Your task to perform on an android device: Toggle the flashlight Image 0: 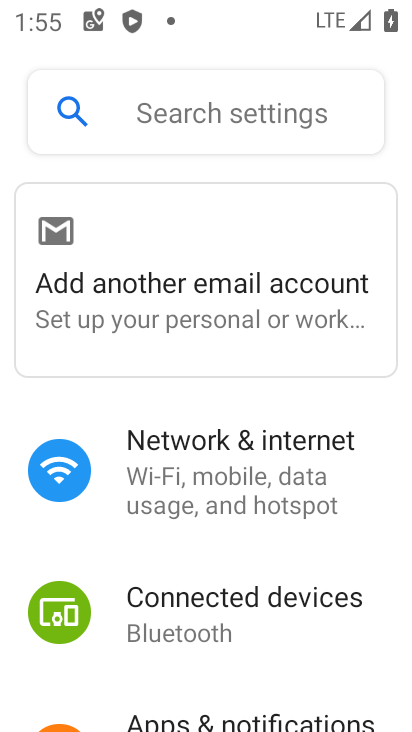
Step 0: press home button
Your task to perform on an android device: Toggle the flashlight Image 1: 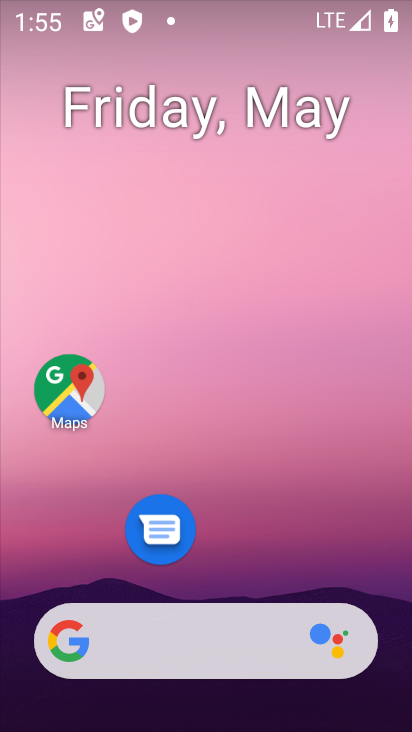
Step 1: drag from (225, 568) to (224, 219)
Your task to perform on an android device: Toggle the flashlight Image 2: 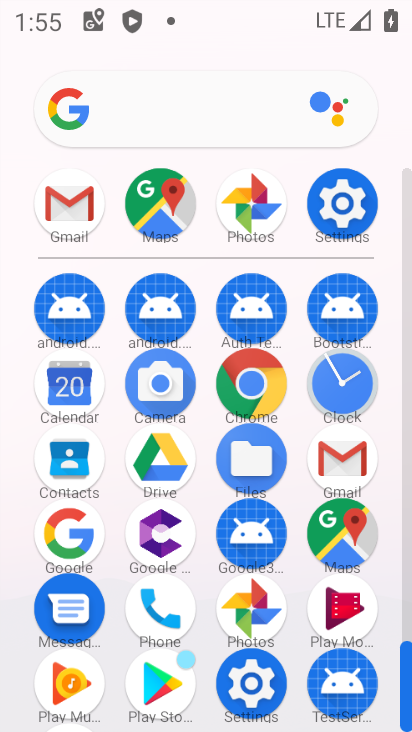
Step 2: drag from (201, 643) to (198, 361)
Your task to perform on an android device: Toggle the flashlight Image 3: 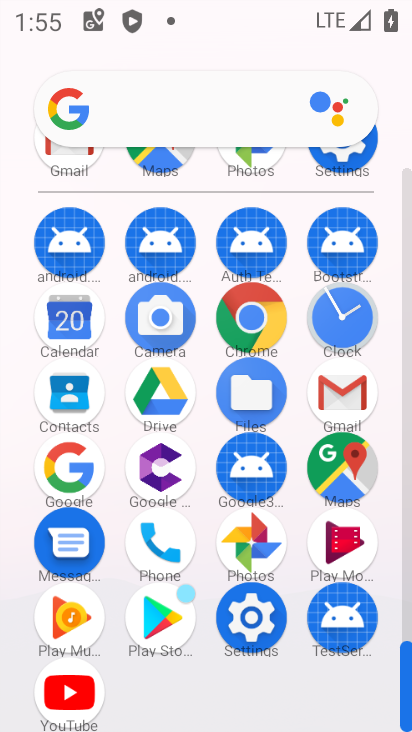
Step 3: click (247, 621)
Your task to perform on an android device: Toggle the flashlight Image 4: 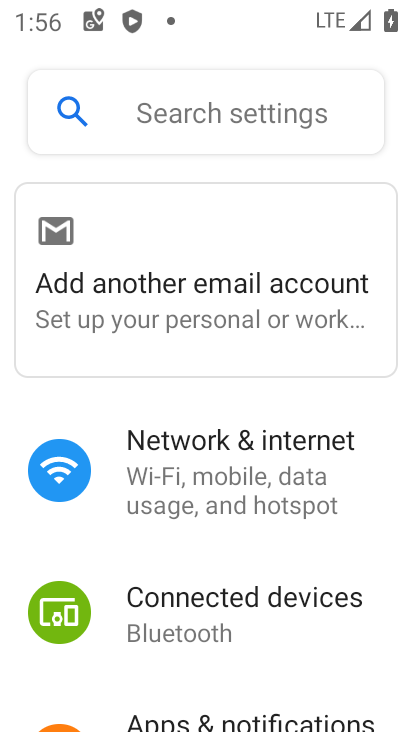
Step 4: click (139, 97)
Your task to perform on an android device: Toggle the flashlight Image 5: 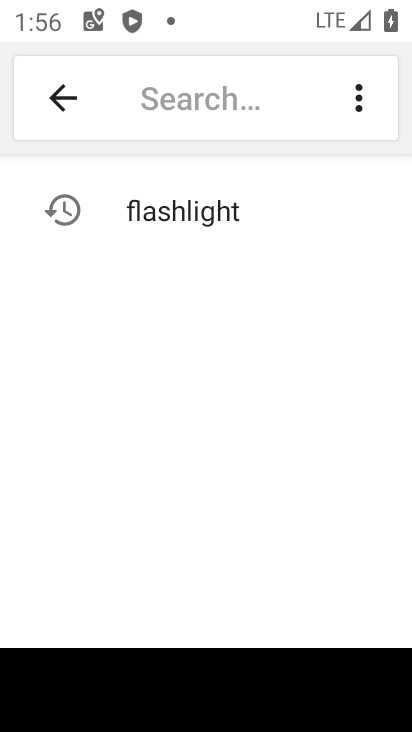
Step 5: click (155, 229)
Your task to perform on an android device: Toggle the flashlight Image 6: 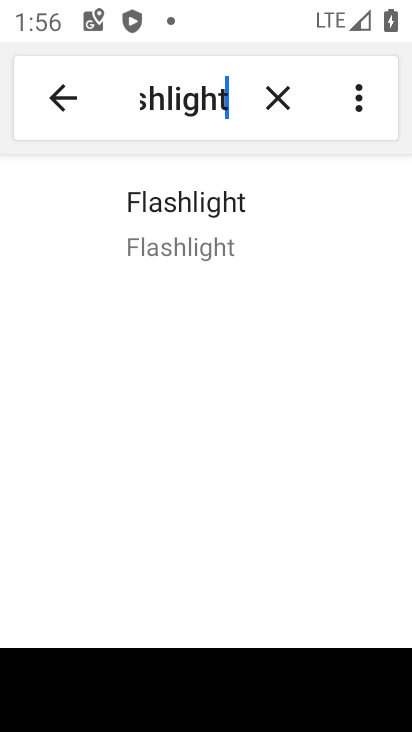
Step 6: click (242, 221)
Your task to perform on an android device: Toggle the flashlight Image 7: 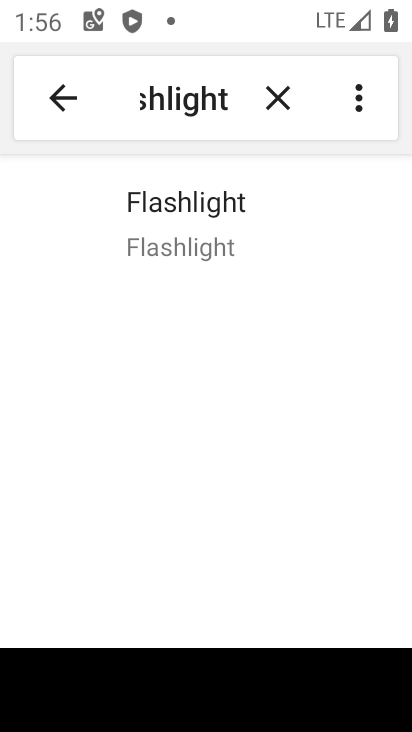
Step 7: task complete